Your task to perform on an android device: Open battery settings Image 0: 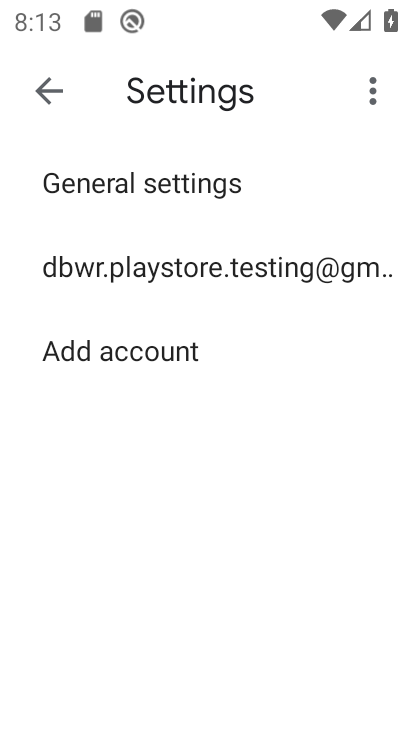
Step 0: press home button
Your task to perform on an android device: Open battery settings Image 1: 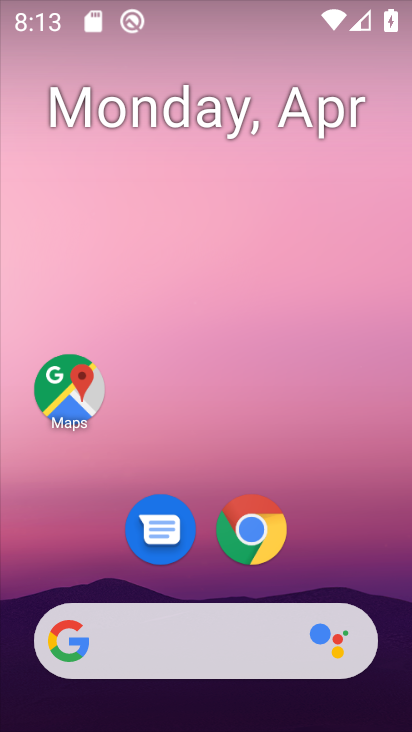
Step 1: drag from (369, 522) to (406, 79)
Your task to perform on an android device: Open battery settings Image 2: 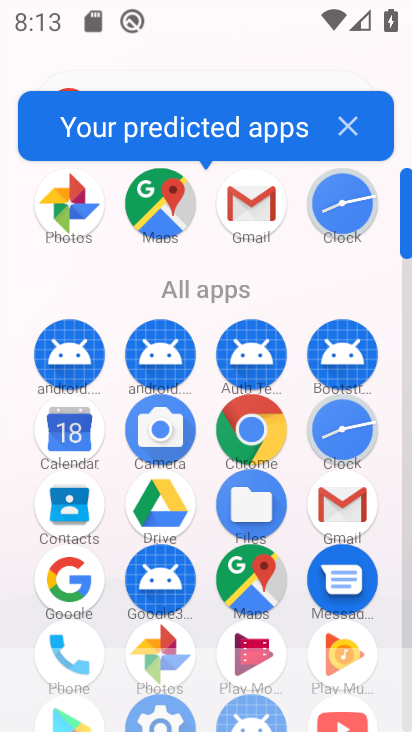
Step 2: drag from (379, 309) to (380, 151)
Your task to perform on an android device: Open battery settings Image 3: 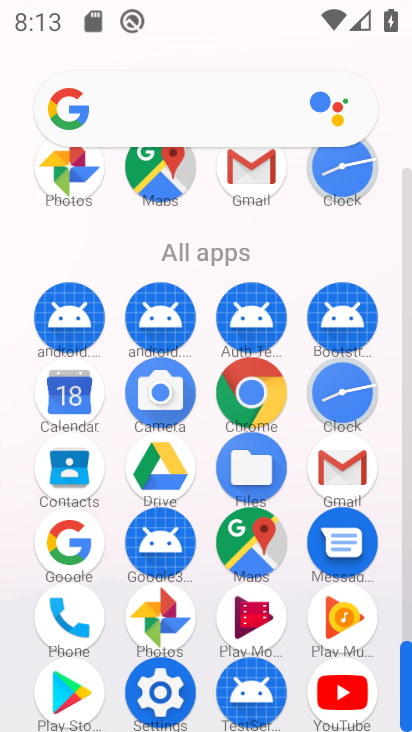
Step 3: click (148, 703)
Your task to perform on an android device: Open battery settings Image 4: 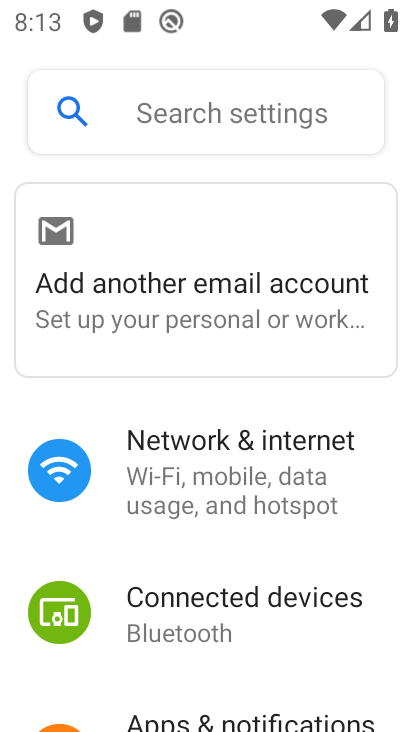
Step 4: drag from (236, 647) to (257, 245)
Your task to perform on an android device: Open battery settings Image 5: 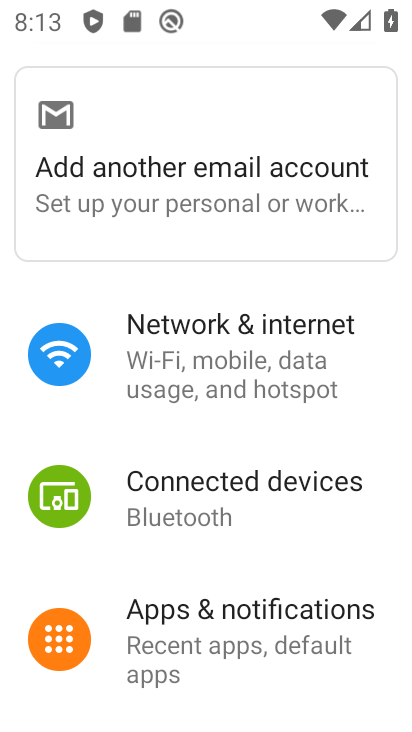
Step 5: drag from (325, 652) to (326, 271)
Your task to perform on an android device: Open battery settings Image 6: 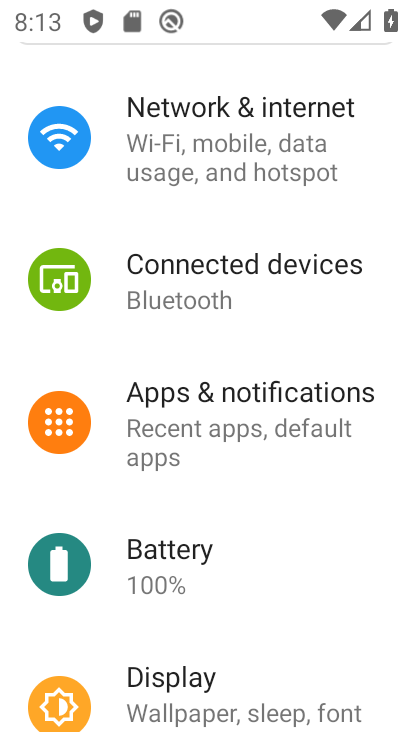
Step 6: click (147, 562)
Your task to perform on an android device: Open battery settings Image 7: 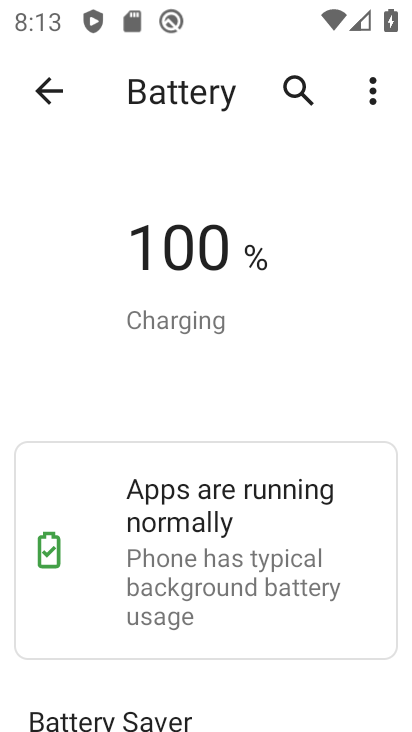
Step 7: task complete